Your task to perform on an android device: Show me productivity apps on the Play Store Image 0: 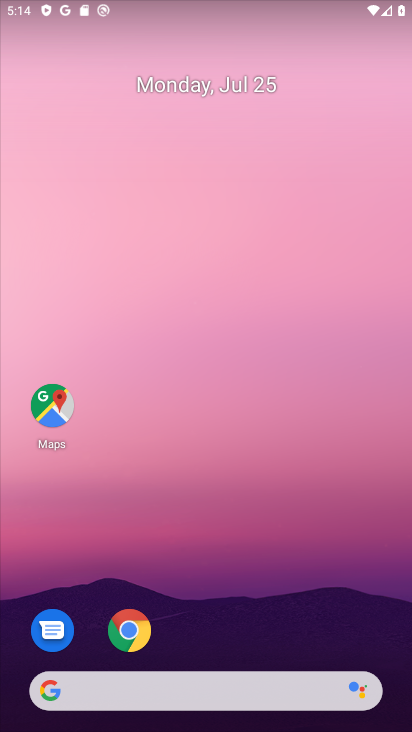
Step 0: drag from (228, 635) to (258, 9)
Your task to perform on an android device: Show me productivity apps on the Play Store Image 1: 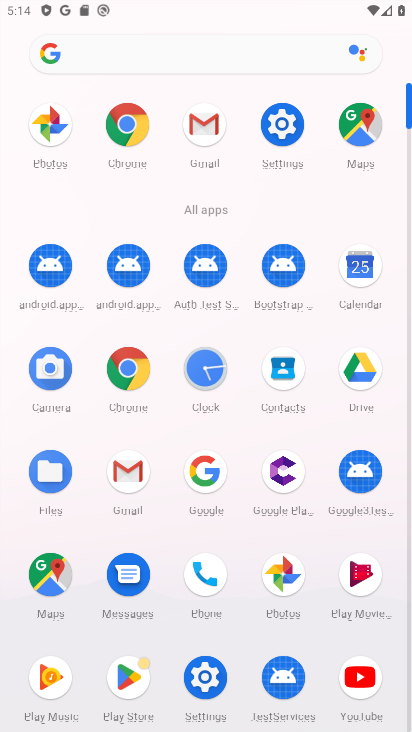
Step 1: click (127, 671)
Your task to perform on an android device: Show me productivity apps on the Play Store Image 2: 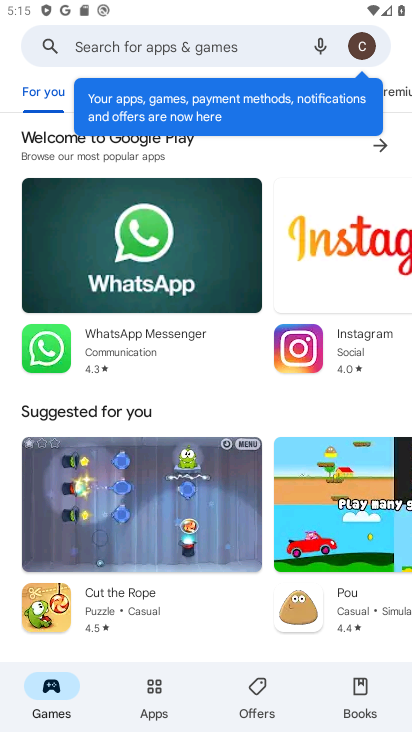
Step 2: click (151, 702)
Your task to perform on an android device: Show me productivity apps on the Play Store Image 3: 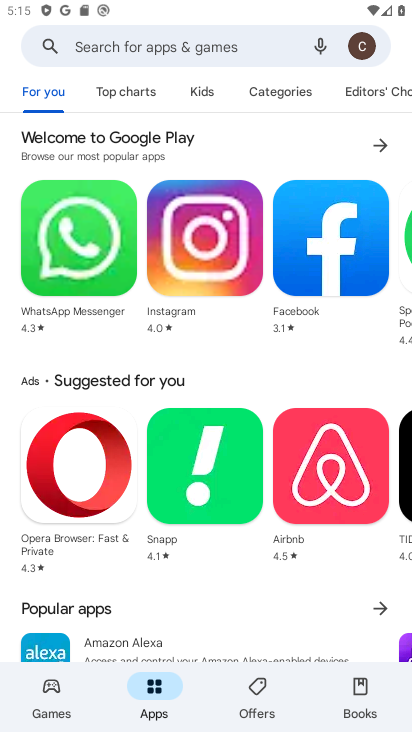
Step 3: click (282, 91)
Your task to perform on an android device: Show me productivity apps on the Play Store Image 4: 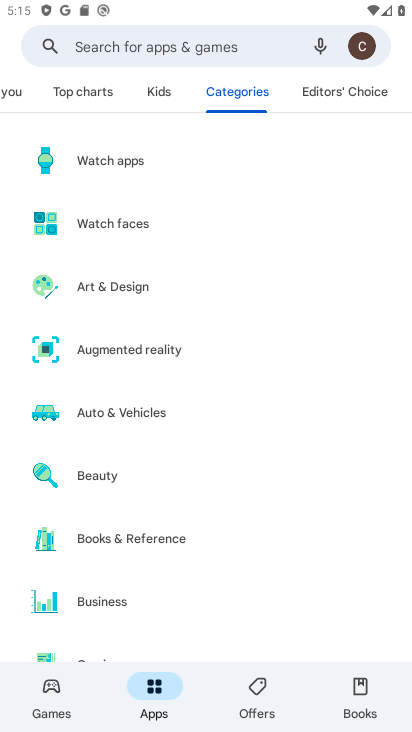
Step 4: drag from (160, 605) to (168, 93)
Your task to perform on an android device: Show me productivity apps on the Play Store Image 5: 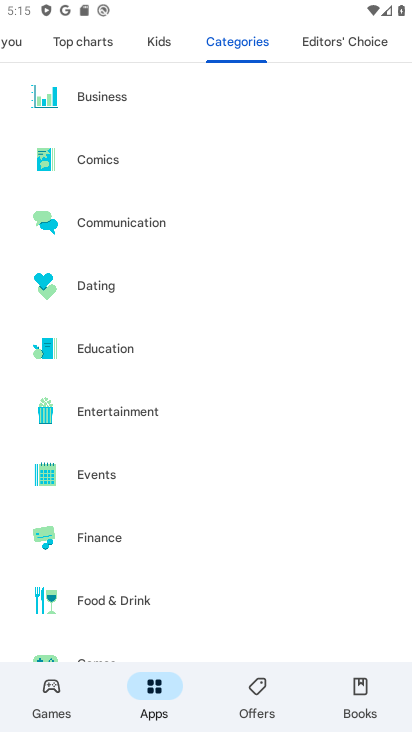
Step 5: drag from (132, 554) to (118, 116)
Your task to perform on an android device: Show me productivity apps on the Play Store Image 6: 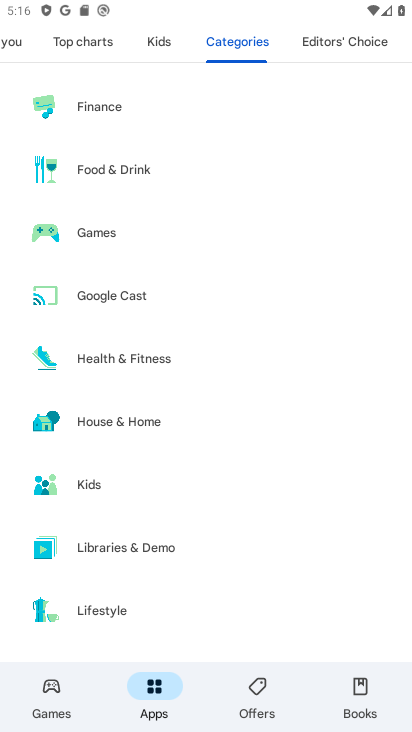
Step 6: drag from (162, 614) to (160, 178)
Your task to perform on an android device: Show me productivity apps on the Play Store Image 7: 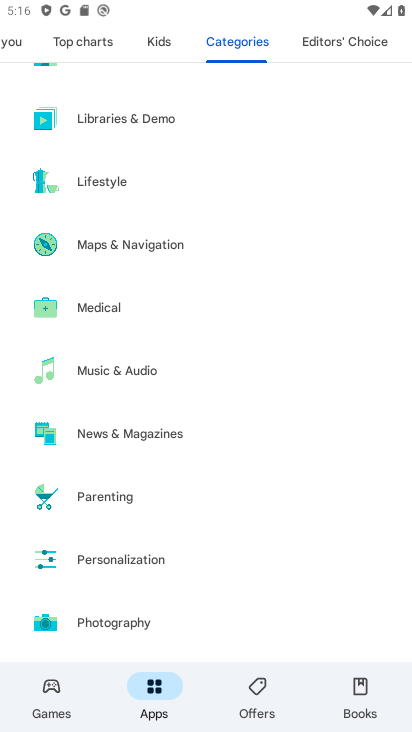
Step 7: drag from (164, 616) to (178, 171)
Your task to perform on an android device: Show me productivity apps on the Play Store Image 8: 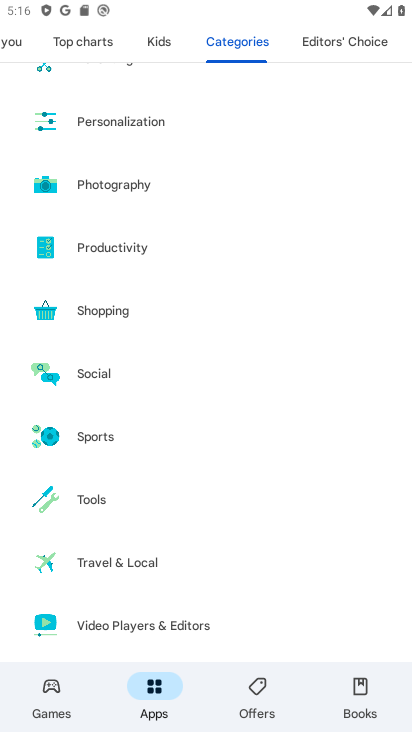
Step 8: click (153, 247)
Your task to perform on an android device: Show me productivity apps on the Play Store Image 9: 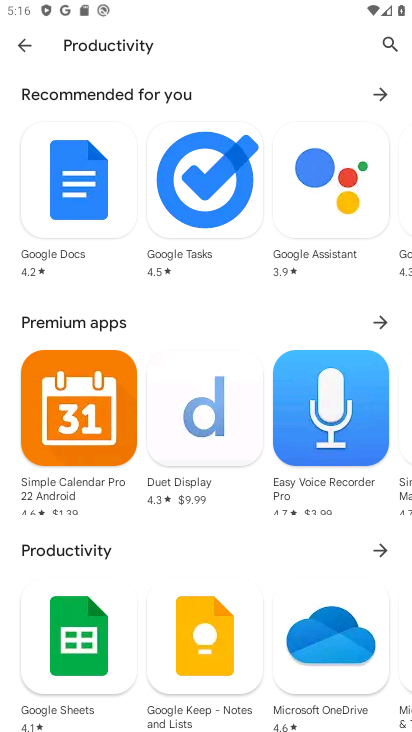
Step 9: task complete